Your task to perform on an android device: Go to Yahoo.com Image 0: 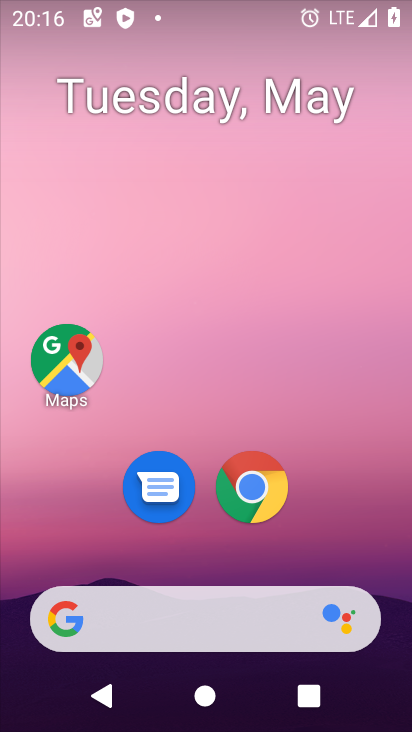
Step 0: click (261, 463)
Your task to perform on an android device: Go to Yahoo.com Image 1: 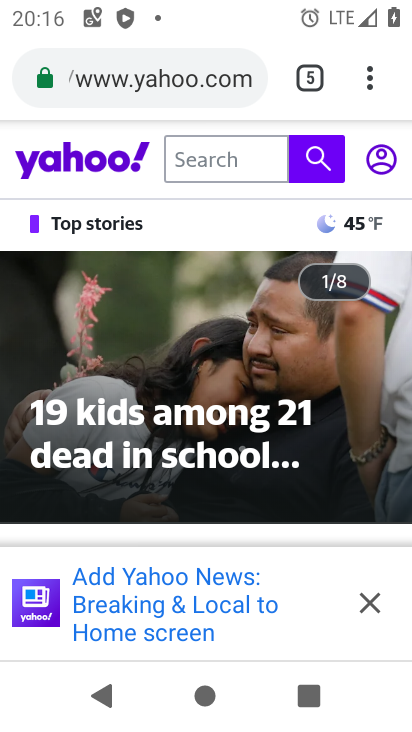
Step 1: task complete